Your task to perform on an android device: Open the stopwatch Image 0: 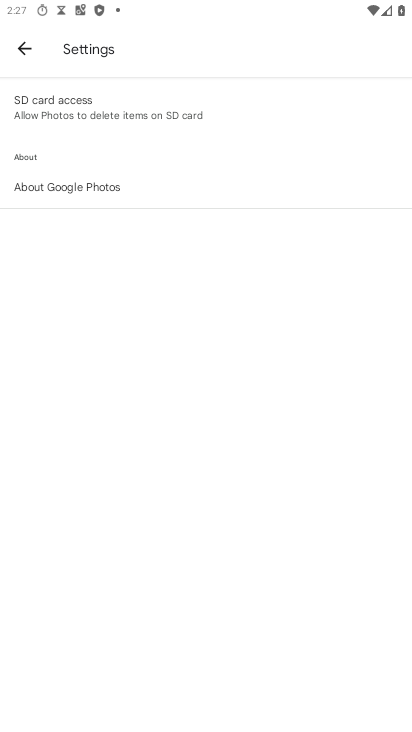
Step 0: press home button
Your task to perform on an android device: Open the stopwatch Image 1: 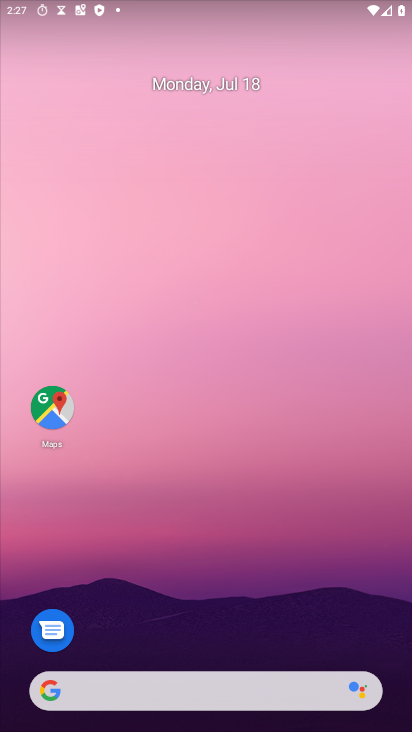
Step 1: drag from (219, 585) to (266, 110)
Your task to perform on an android device: Open the stopwatch Image 2: 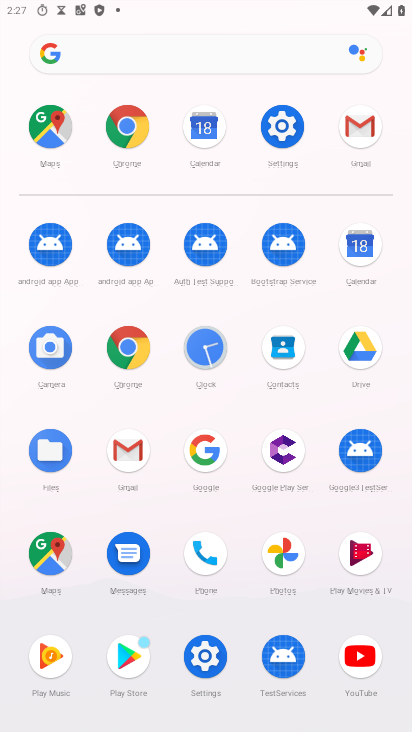
Step 2: click (212, 344)
Your task to perform on an android device: Open the stopwatch Image 3: 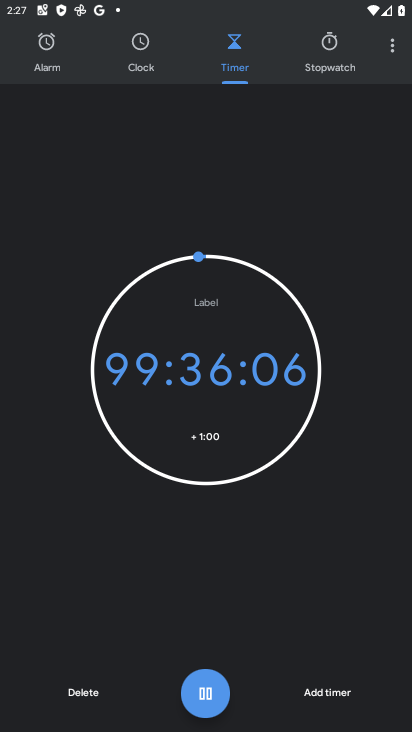
Step 3: click (316, 53)
Your task to perform on an android device: Open the stopwatch Image 4: 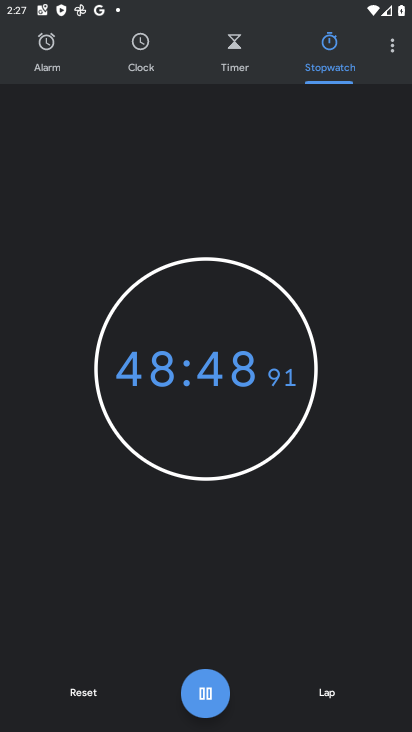
Step 4: task complete